Your task to perform on an android device: toggle translation in the chrome app Image 0: 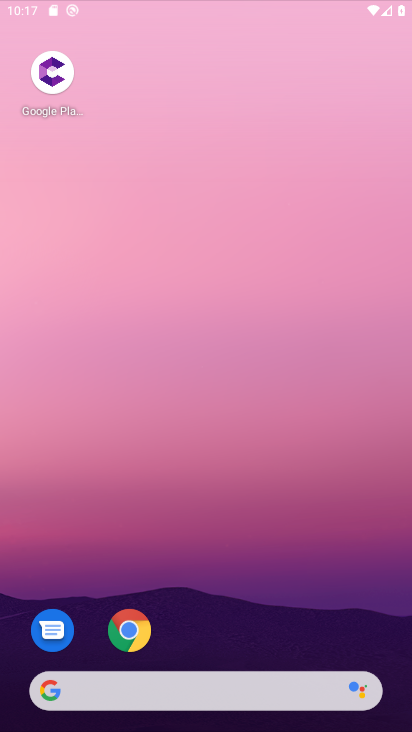
Step 0: drag from (199, 657) to (162, 14)
Your task to perform on an android device: toggle translation in the chrome app Image 1: 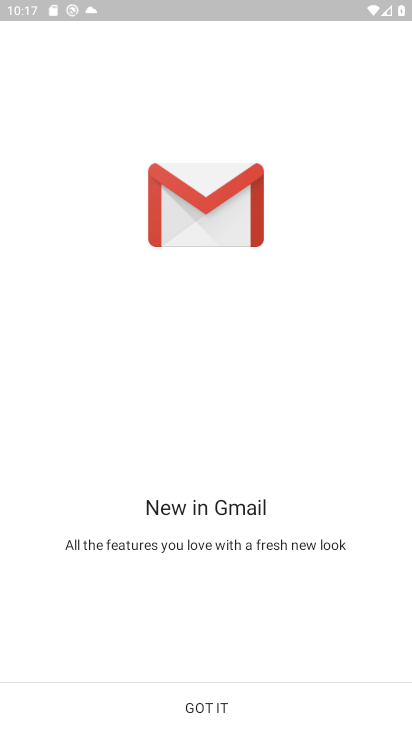
Step 1: press home button
Your task to perform on an android device: toggle translation in the chrome app Image 2: 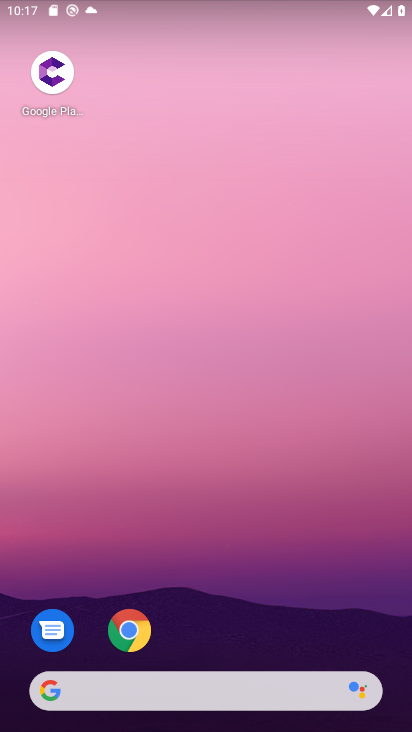
Step 2: drag from (208, 661) to (202, 49)
Your task to perform on an android device: toggle translation in the chrome app Image 3: 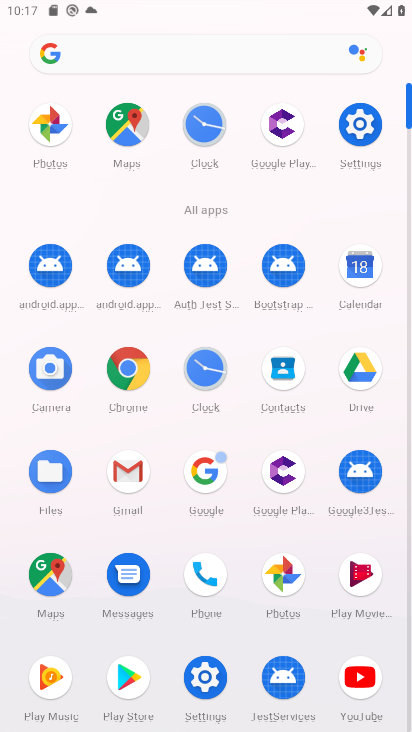
Step 3: click (127, 379)
Your task to perform on an android device: toggle translation in the chrome app Image 4: 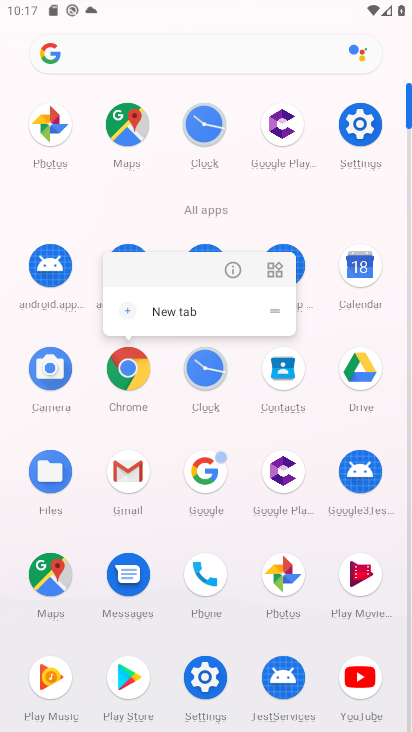
Step 4: click (127, 375)
Your task to perform on an android device: toggle translation in the chrome app Image 5: 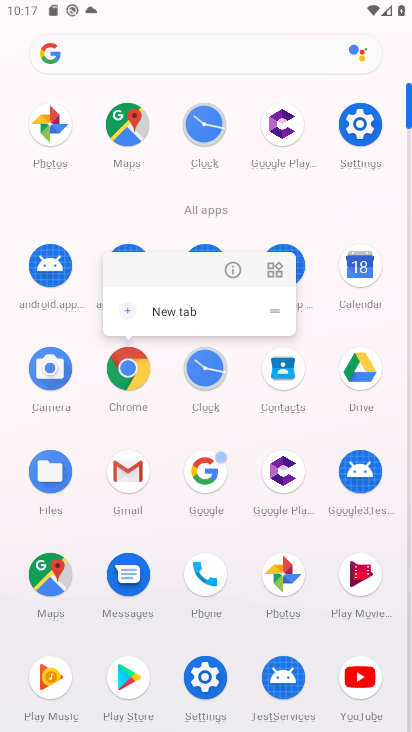
Step 5: click (126, 373)
Your task to perform on an android device: toggle translation in the chrome app Image 6: 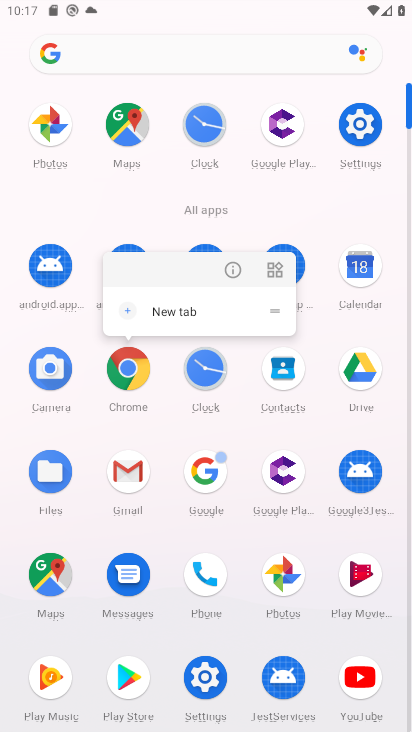
Step 6: click (134, 373)
Your task to perform on an android device: toggle translation in the chrome app Image 7: 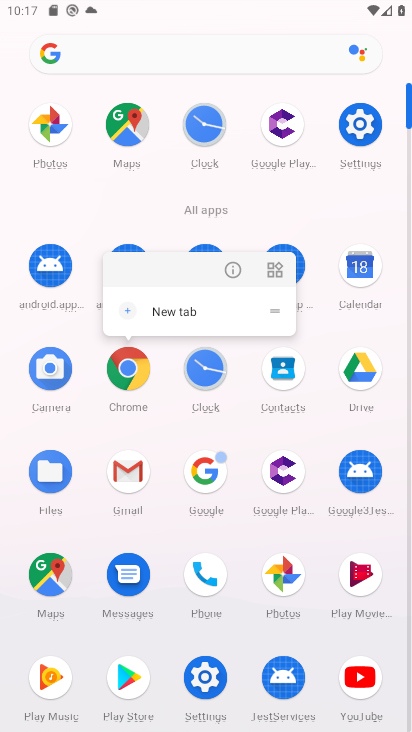
Step 7: click (129, 382)
Your task to perform on an android device: toggle translation in the chrome app Image 8: 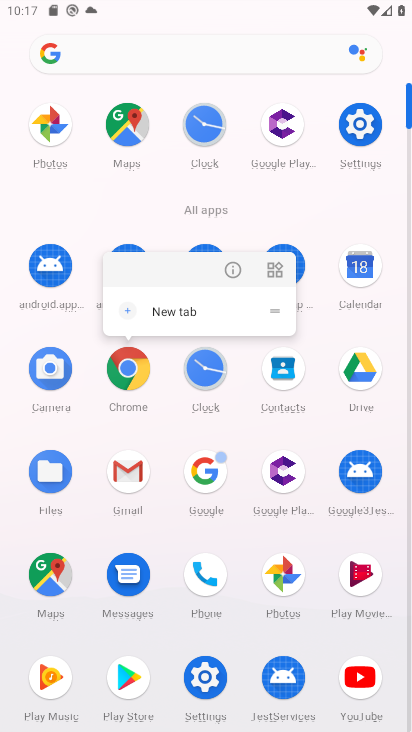
Step 8: click (129, 382)
Your task to perform on an android device: toggle translation in the chrome app Image 9: 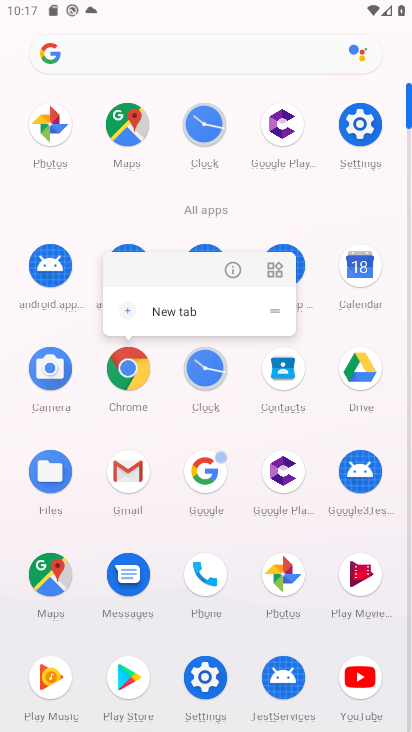
Step 9: click (128, 383)
Your task to perform on an android device: toggle translation in the chrome app Image 10: 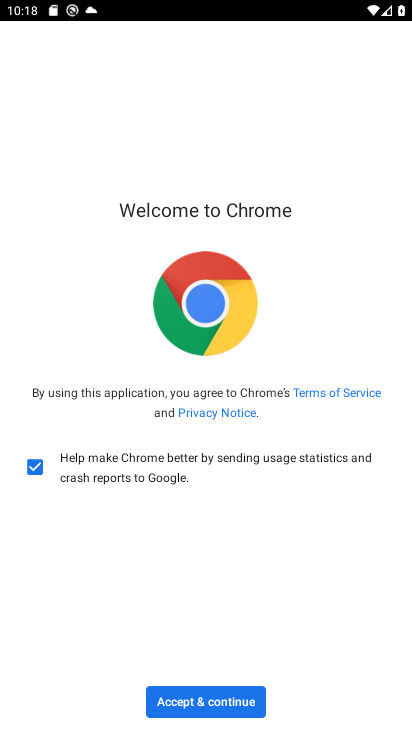
Step 10: click (195, 710)
Your task to perform on an android device: toggle translation in the chrome app Image 11: 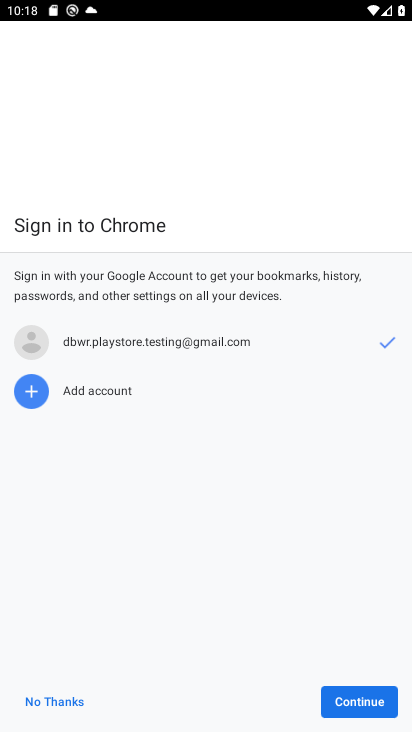
Step 11: click (356, 710)
Your task to perform on an android device: toggle translation in the chrome app Image 12: 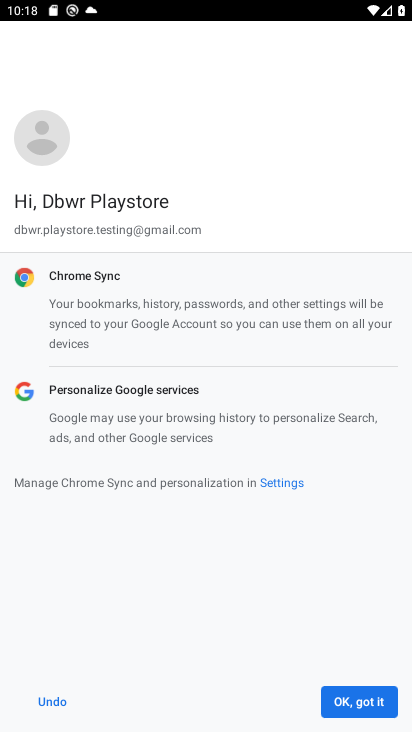
Step 12: click (356, 710)
Your task to perform on an android device: toggle translation in the chrome app Image 13: 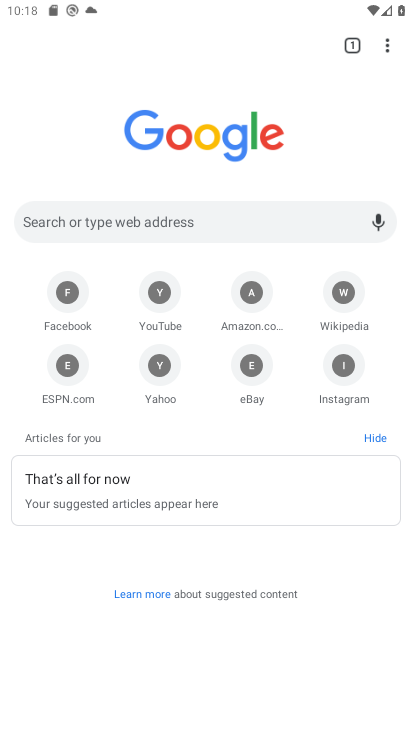
Step 13: click (384, 46)
Your task to perform on an android device: toggle translation in the chrome app Image 14: 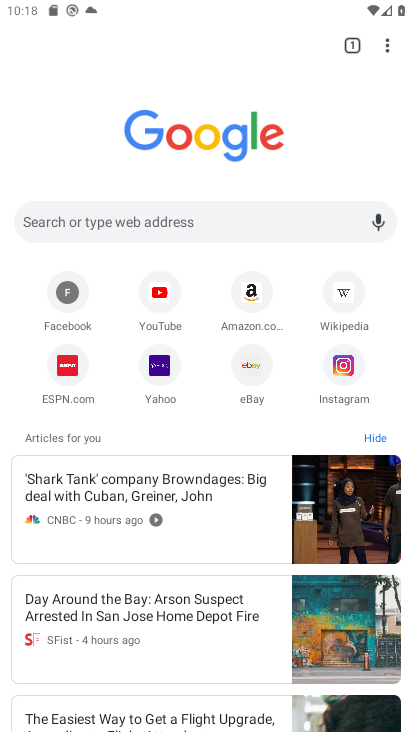
Step 14: click (382, 48)
Your task to perform on an android device: toggle translation in the chrome app Image 15: 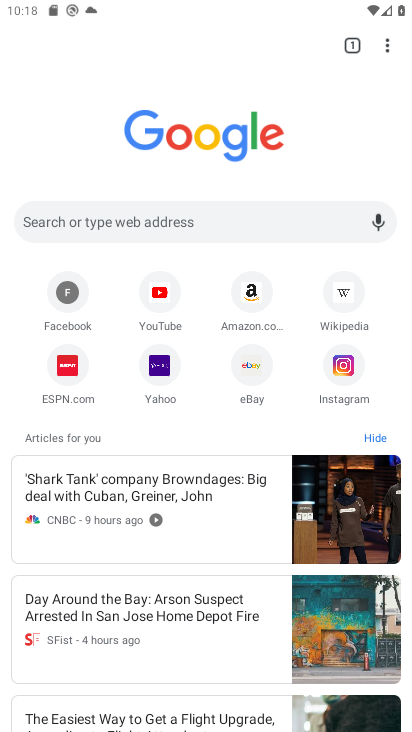
Step 15: click (380, 48)
Your task to perform on an android device: toggle translation in the chrome app Image 16: 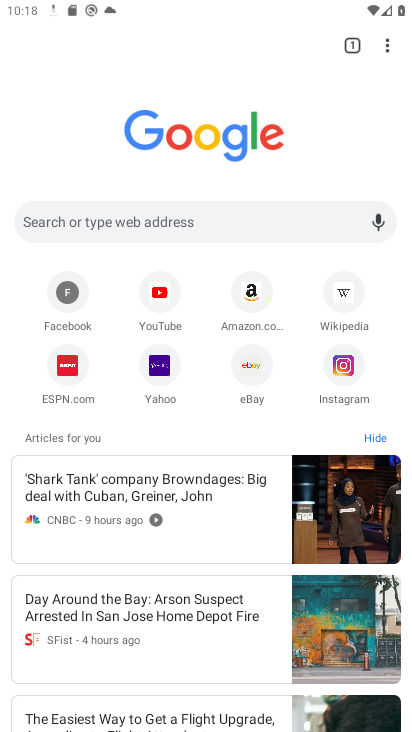
Step 16: click (388, 51)
Your task to perform on an android device: toggle translation in the chrome app Image 17: 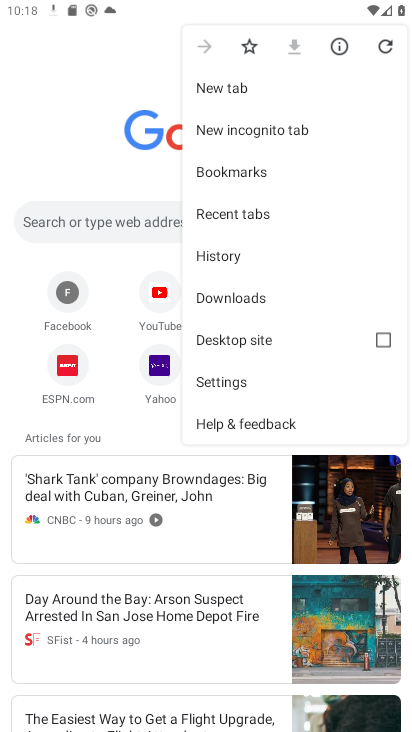
Step 17: click (224, 383)
Your task to perform on an android device: toggle translation in the chrome app Image 18: 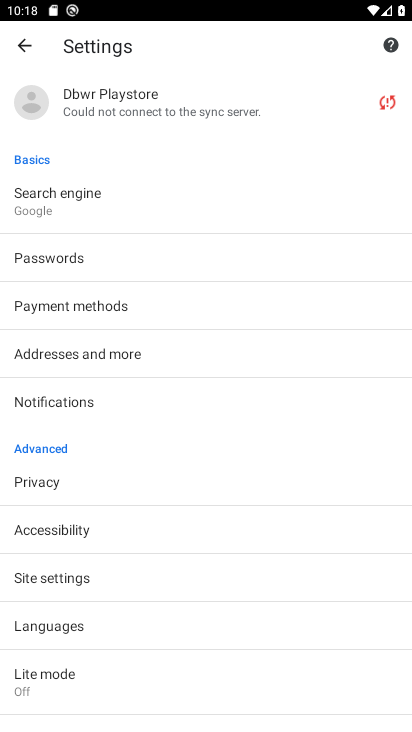
Step 18: click (23, 620)
Your task to perform on an android device: toggle translation in the chrome app Image 19: 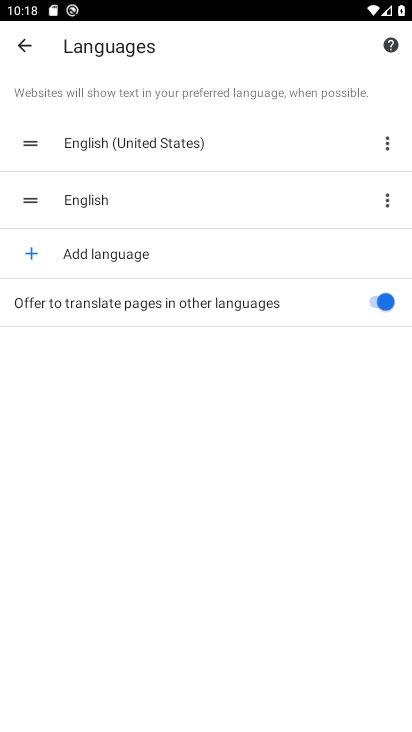
Step 19: click (378, 302)
Your task to perform on an android device: toggle translation in the chrome app Image 20: 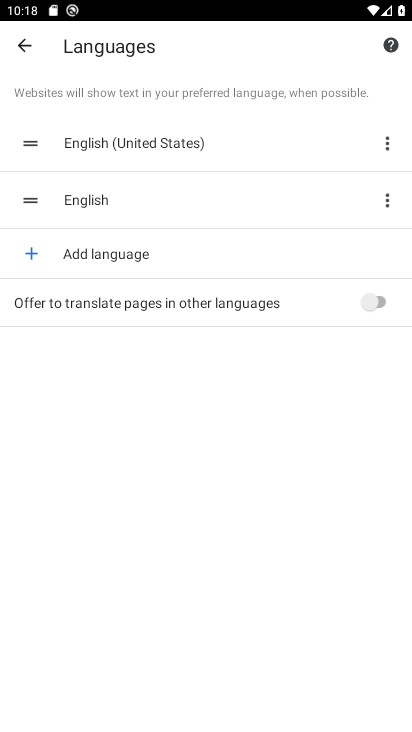
Step 20: task complete